Your task to perform on an android device: open device folders in google photos Image 0: 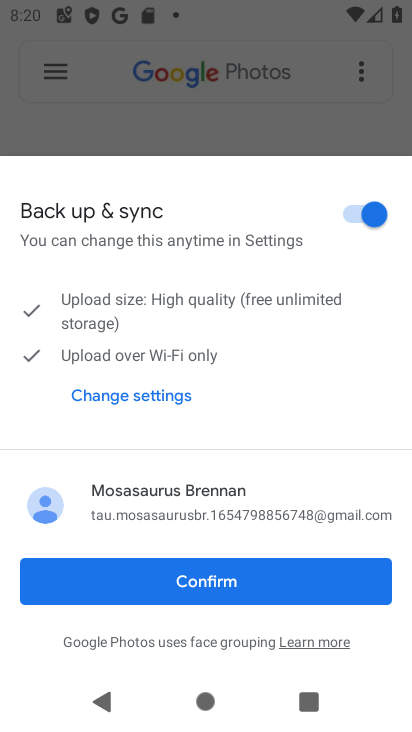
Step 0: press home button
Your task to perform on an android device: open device folders in google photos Image 1: 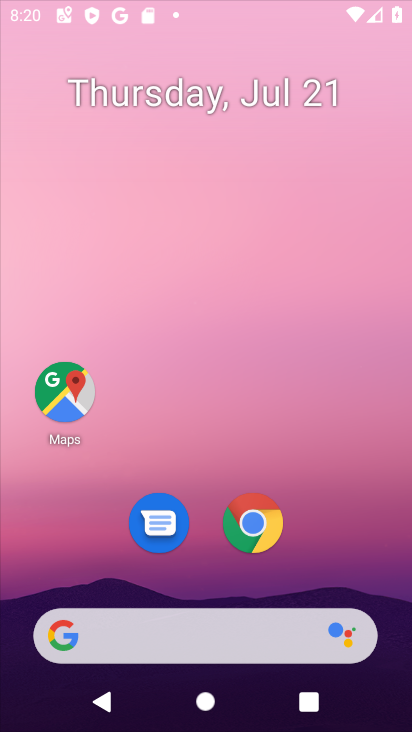
Step 1: press home button
Your task to perform on an android device: open device folders in google photos Image 2: 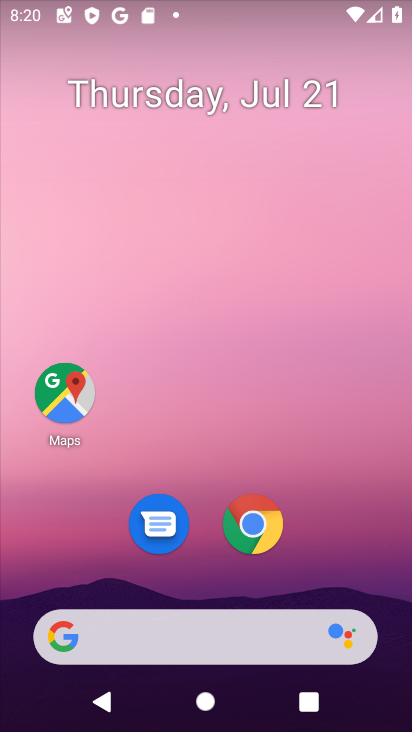
Step 2: drag from (226, 636) to (325, 171)
Your task to perform on an android device: open device folders in google photos Image 3: 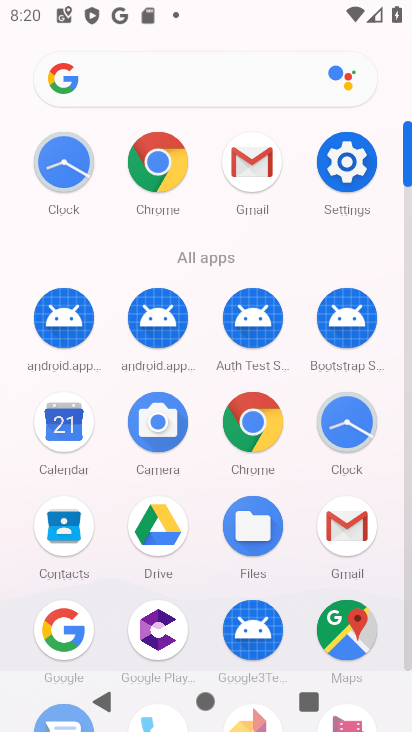
Step 3: drag from (204, 553) to (259, 143)
Your task to perform on an android device: open device folders in google photos Image 4: 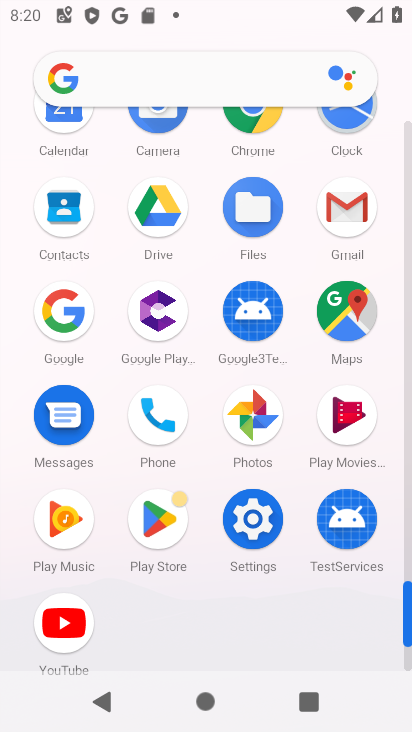
Step 4: click (254, 437)
Your task to perform on an android device: open device folders in google photos Image 5: 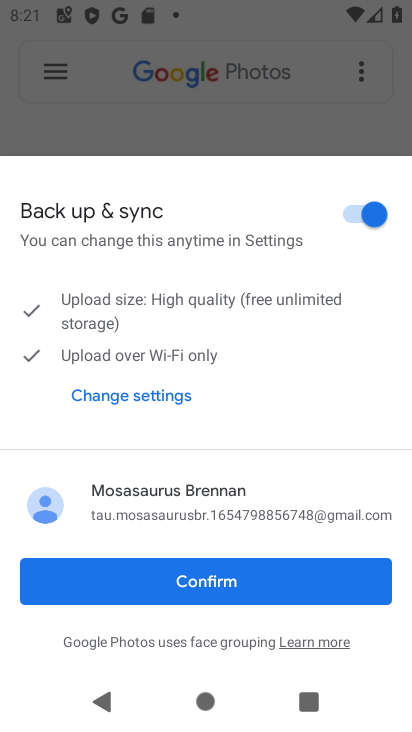
Step 5: click (197, 580)
Your task to perform on an android device: open device folders in google photos Image 6: 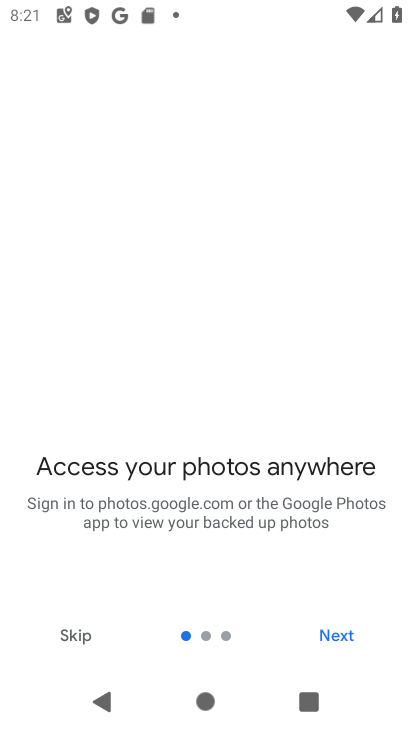
Step 6: click (326, 629)
Your task to perform on an android device: open device folders in google photos Image 7: 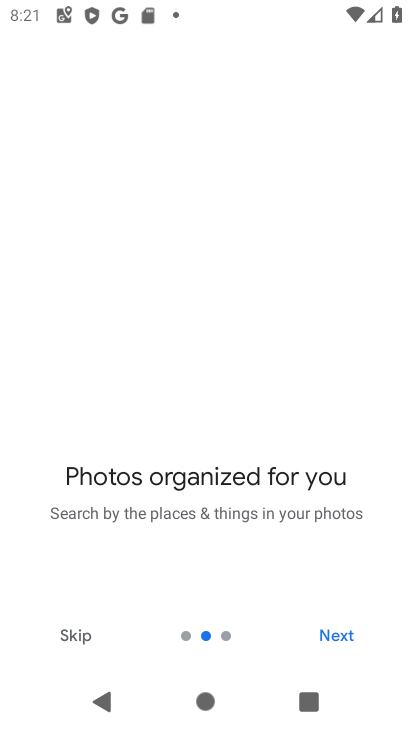
Step 7: click (326, 629)
Your task to perform on an android device: open device folders in google photos Image 8: 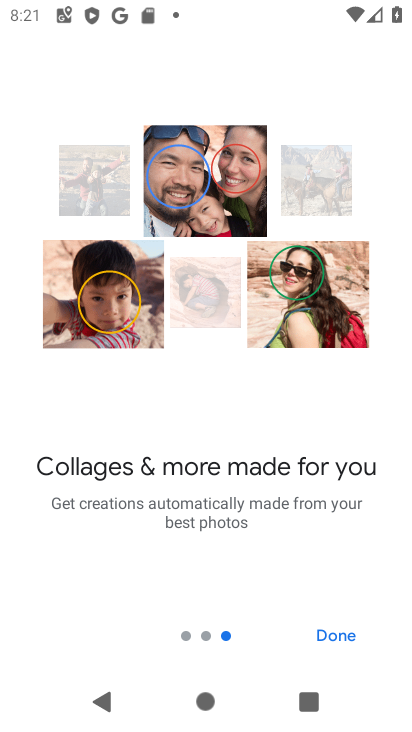
Step 8: click (326, 629)
Your task to perform on an android device: open device folders in google photos Image 9: 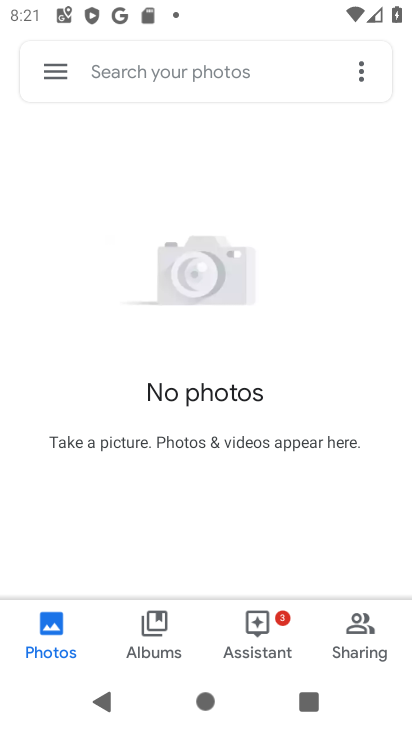
Step 9: click (56, 66)
Your task to perform on an android device: open device folders in google photos Image 10: 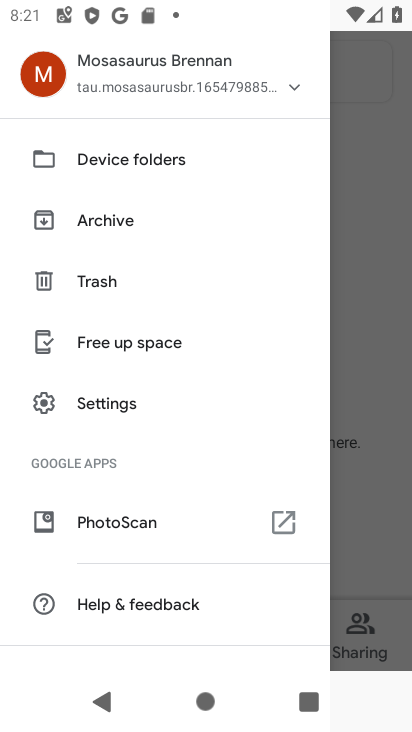
Step 10: click (111, 166)
Your task to perform on an android device: open device folders in google photos Image 11: 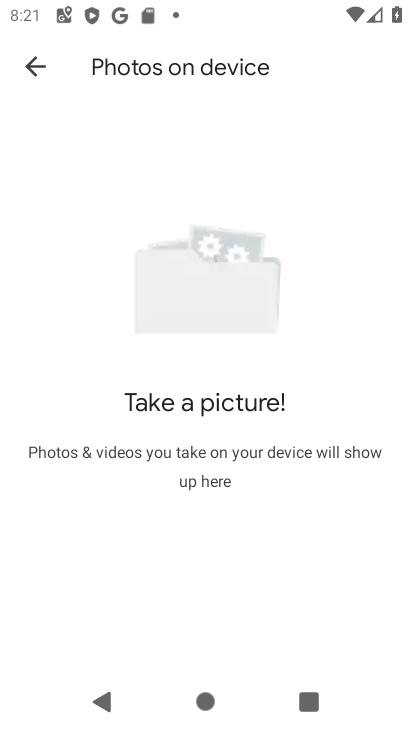
Step 11: task complete